Your task to perform on an android device: Open calendar and show me the first week of next month Image 0: 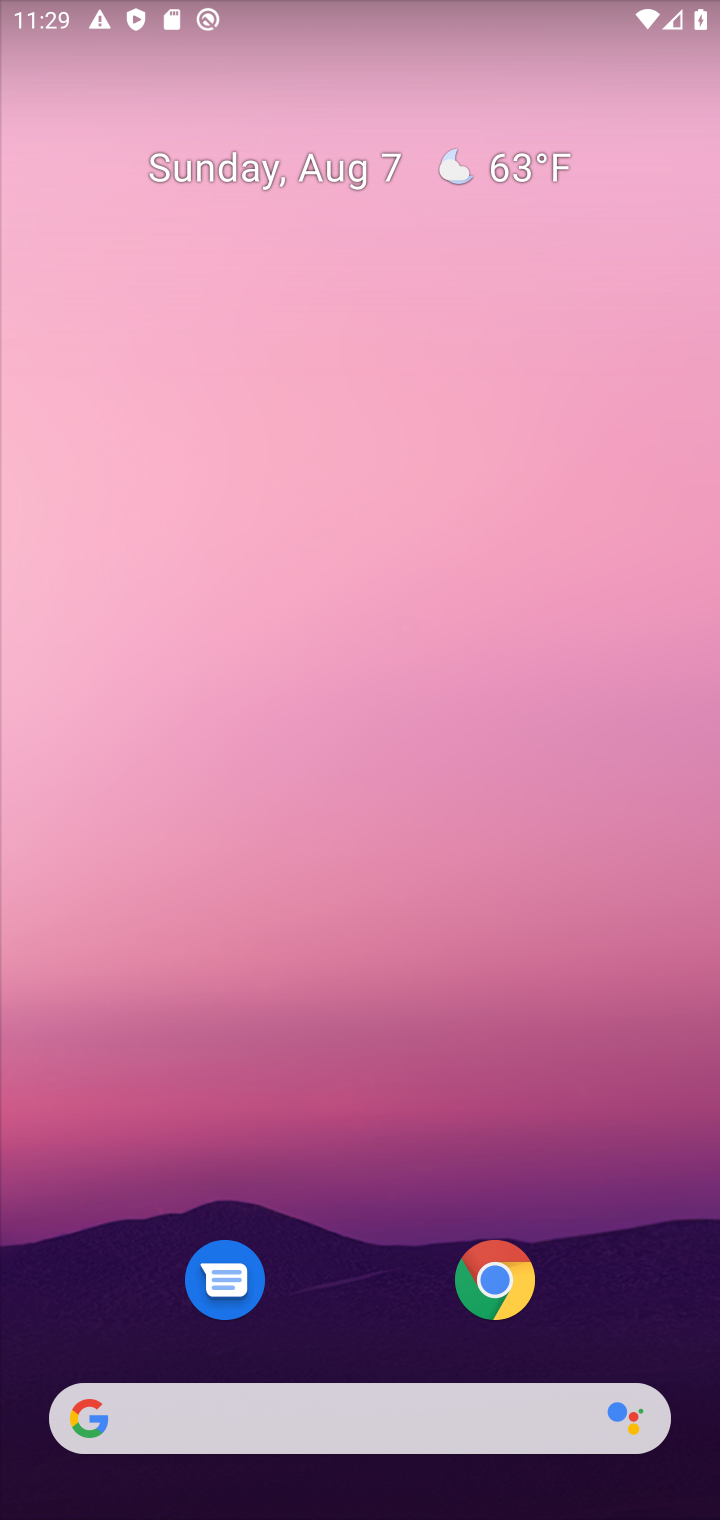
Step 0: drag from (387, 1321) to (412, 92)
Your task to perform on an android device: Open calendar and show me the first week of next month Image 1: 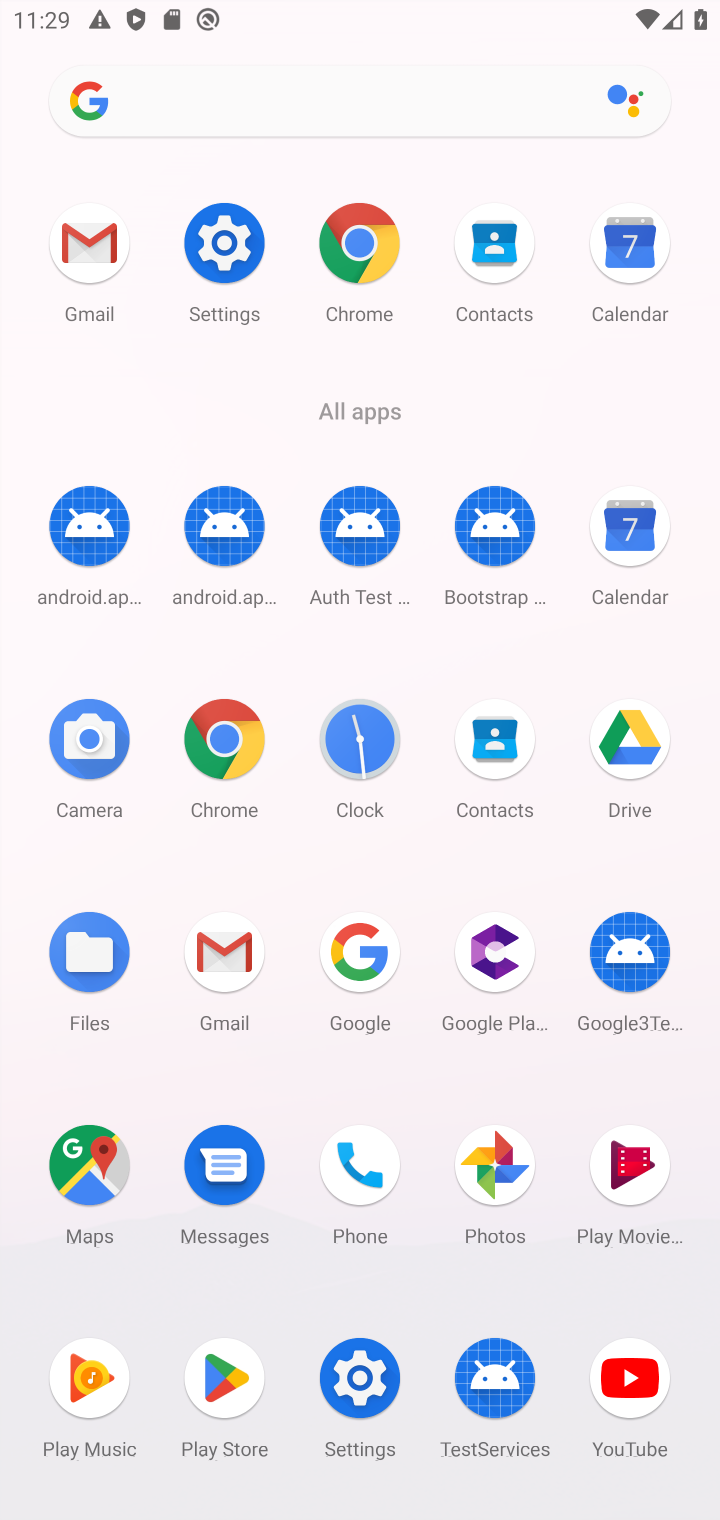
Step 1: click (632, 536)
Your task to perform on an android device: Open calendar and show me the first week of next month Image 2: 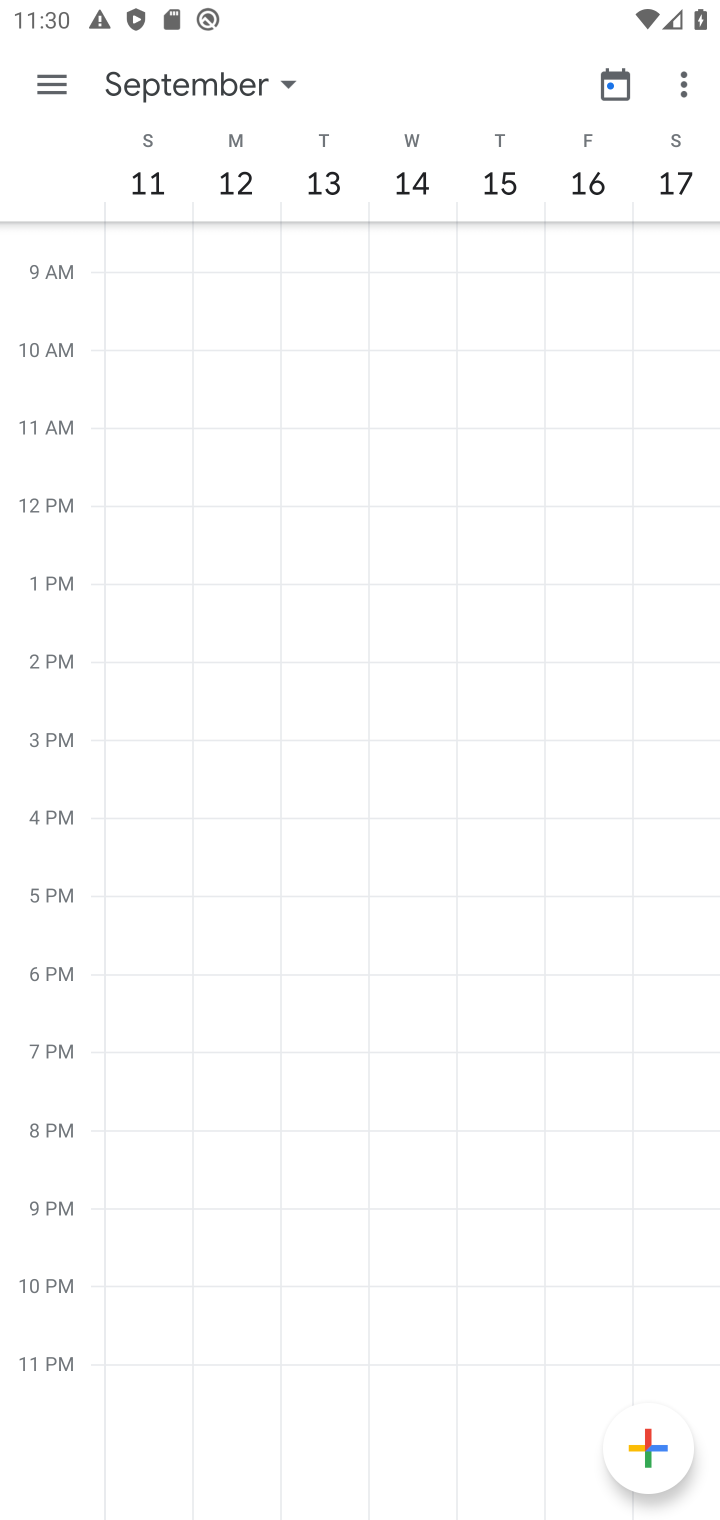
Step 2: click (286, 88)
Your task to perform on an android device: Open calendar and show me the first week of next month Image 3: 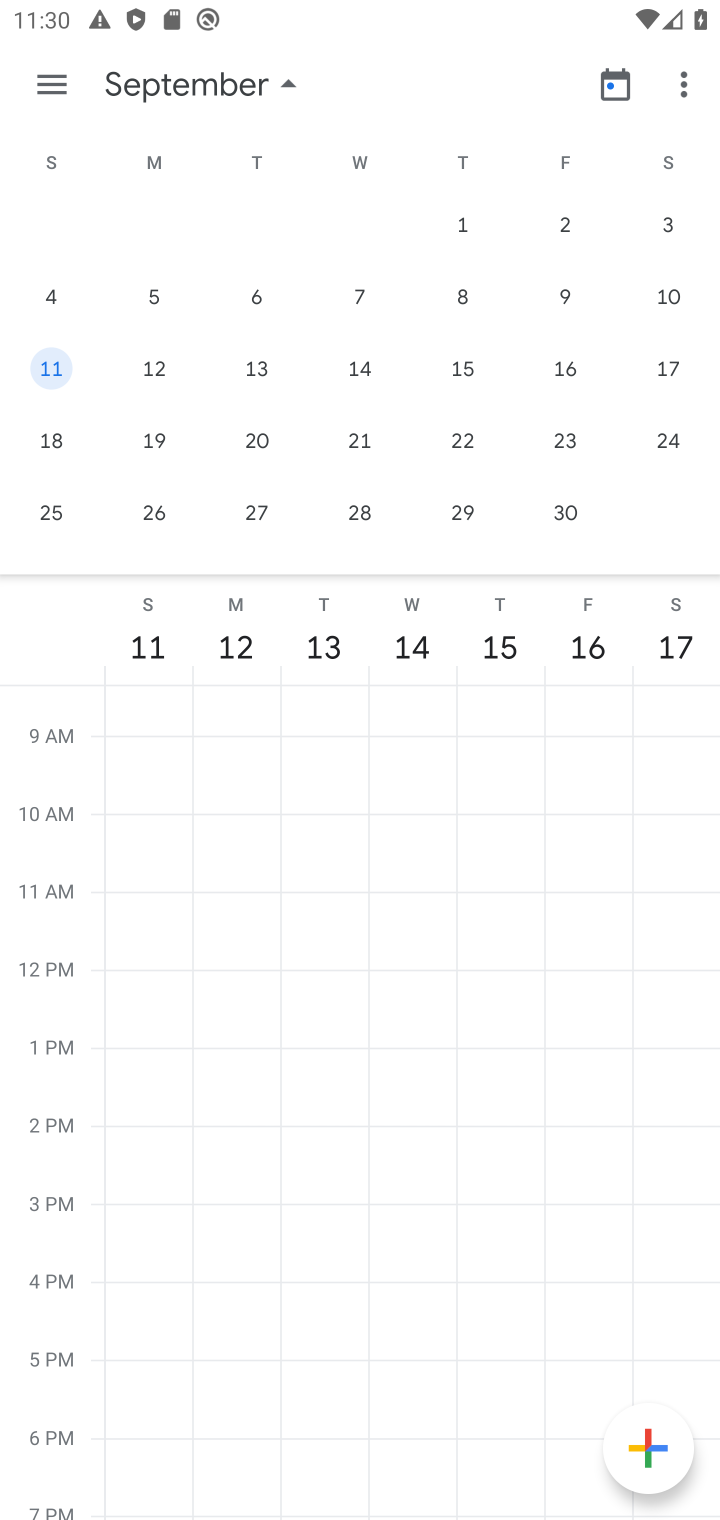
Step 3: click (156, 289)
Your task to perform on an android device: Open calendar and show me the first week of next month Image 4: 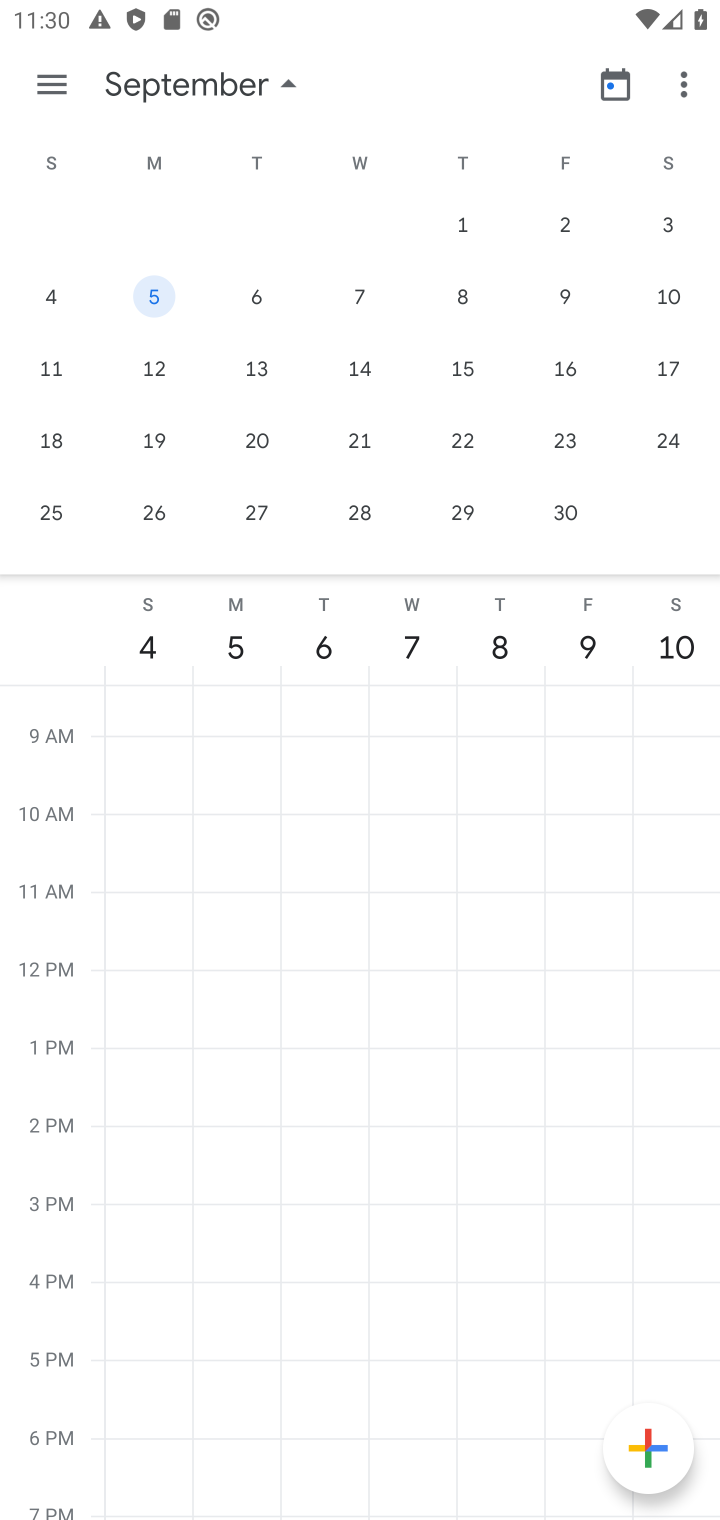
Step 4: task complete